Your task to perform on an android device: Go to wifi settings Image 0: 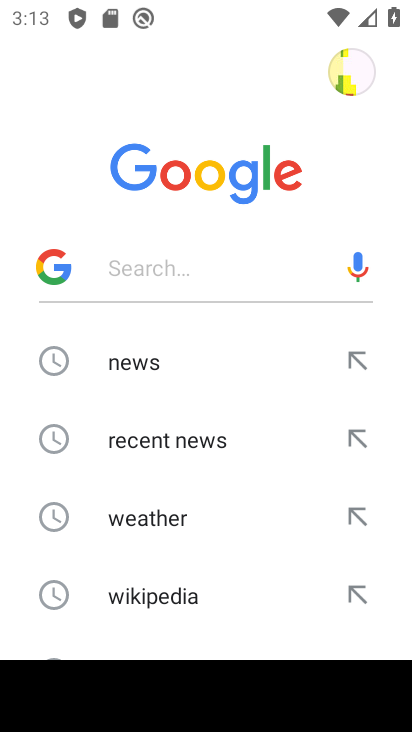
Step 0: press home button
Your task to perform on an android device: Go to wifi settings Image 1: 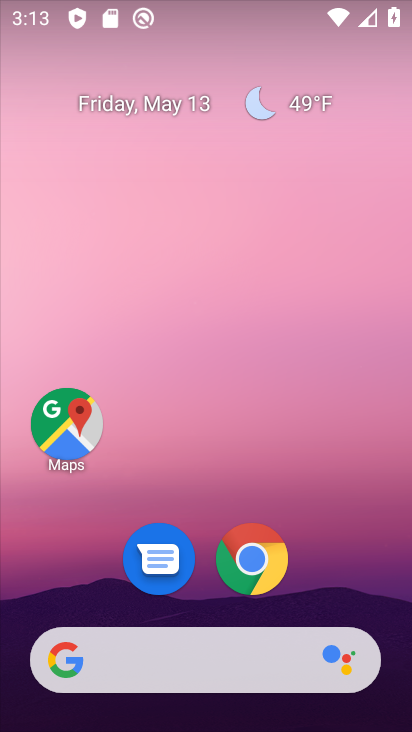
Step 1: drag from (384, 639) to (242, 54)
Your task to perform on an android device: Go to wifi settings Image 2: 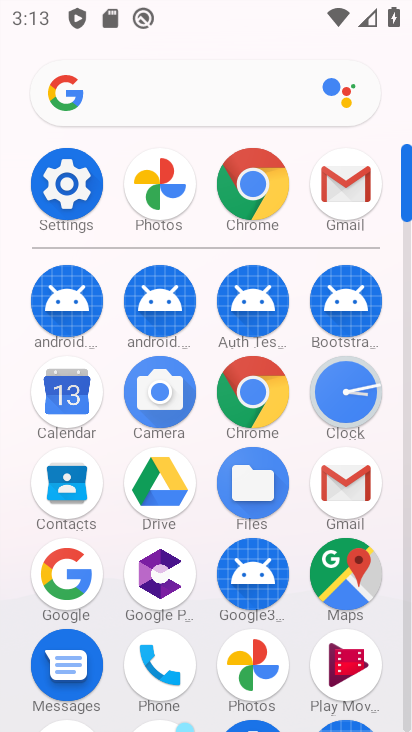
Step 2: click (404, 707)
Your task to perform on an android device: Go to wifi settings Image 3: 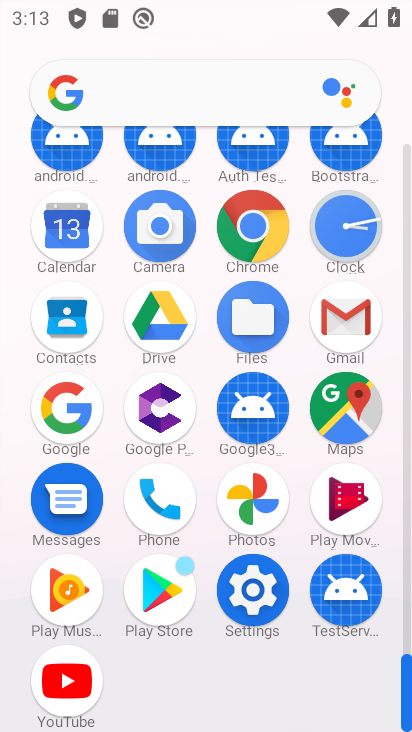
Step 3: click (253, 588)
Your task to perform on an android device: Go to wifi settings Image 4: 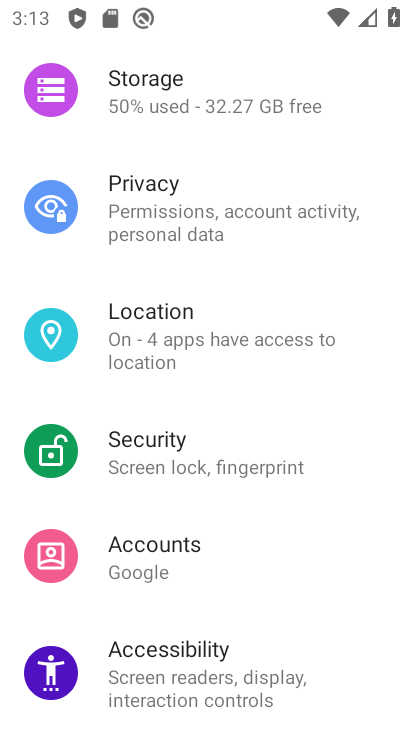
Step 4: drag from (358, 140) to (299, 534)
Your task to perform on an android device: Go to wifi settings Image 5: 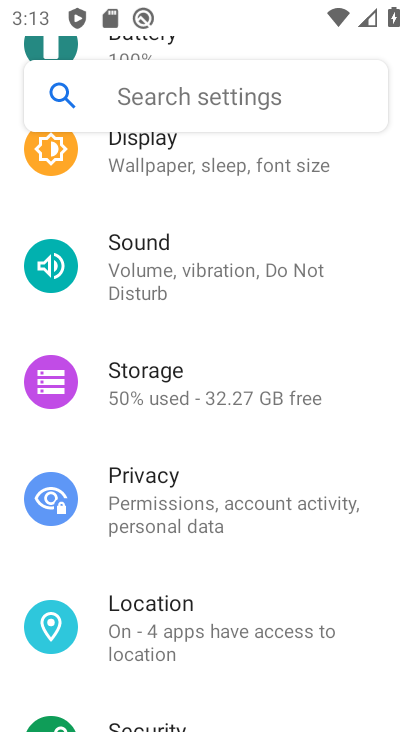
Step 5: drag from (339, 237) to (297, 593)
Your task to perform on an android device: Go to wifi settings Image 6: 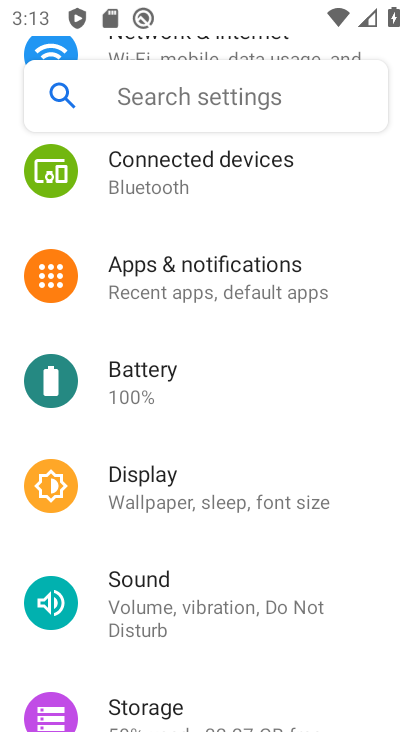
Step 6: drag from (326, 233) to (291, 568)
Your task to perform on an android device: Go to wifi settings Image 7: 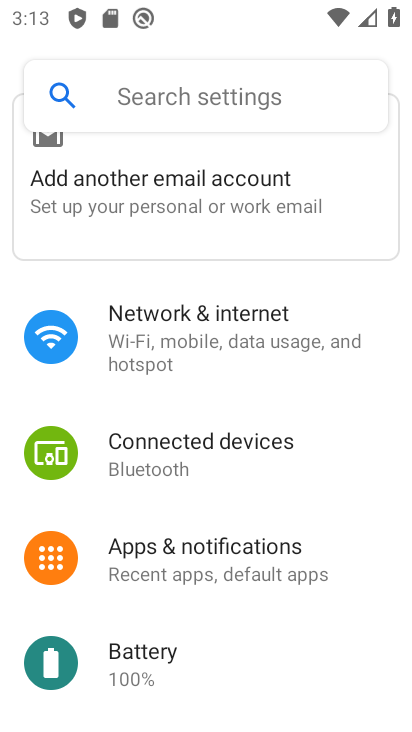
Step 7: click (146, 329)
Your task to perform on an android device: Go to wifi settings Image 8: 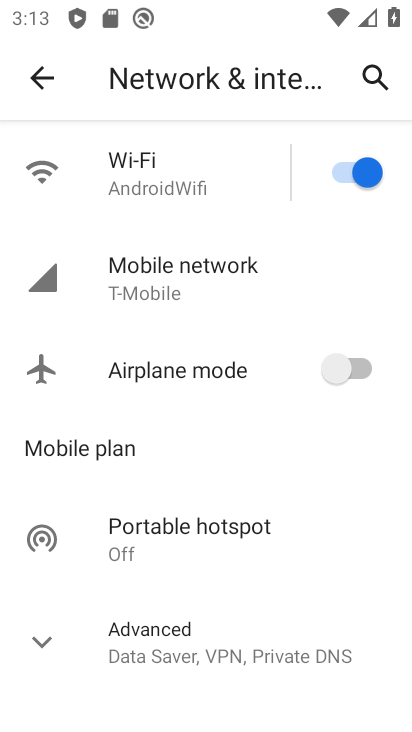
Step 8: click (118, 158)
Your task to perform on an android device: Go to wifi settings Image 9: 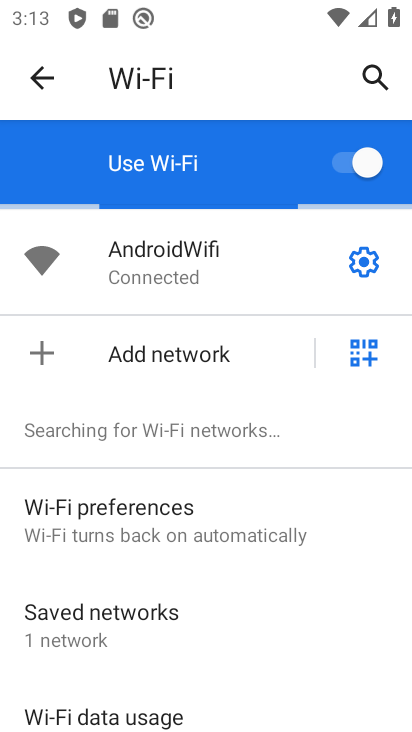
Step 9: drag from (231, 597) to (229, 396)
Your task to perform on an android device: Go to wifi settings Image 10: 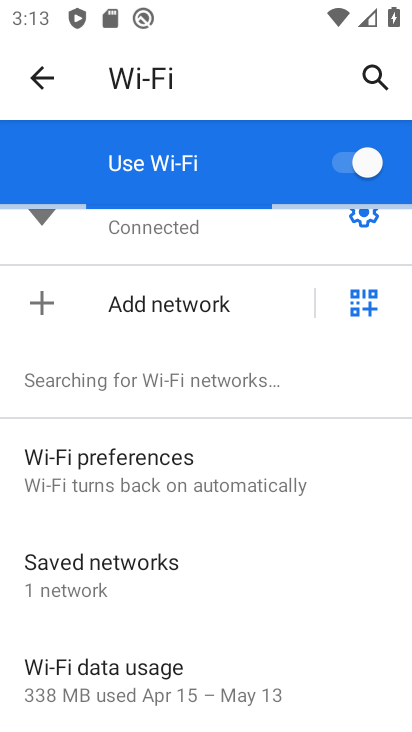
Step 10: click (360, 217)
Your task to perform on an android device: Go to wifi settings Image 11: 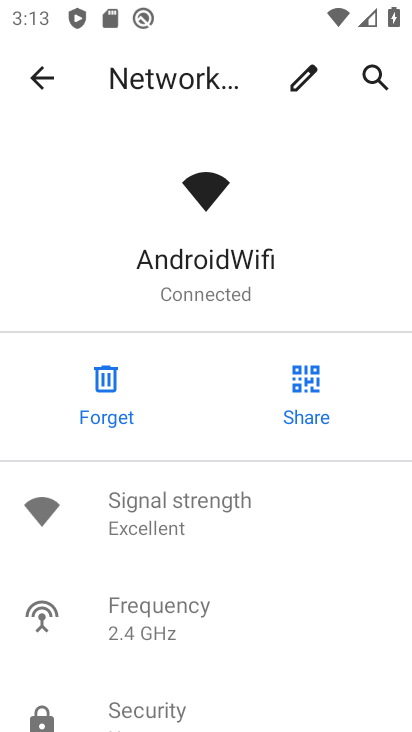
Step 11: drag from (230, 653) to (218, 232)
Your task to perform on an android device: Go to wifi settings Image 12: 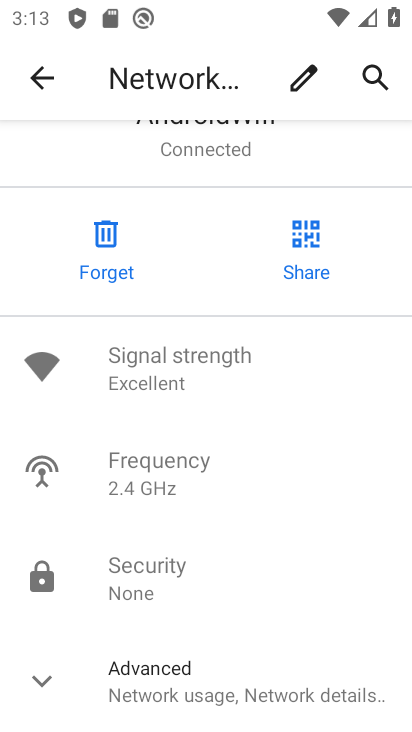
Step 12: click (36, 675)
Your task to perform on an android device: Go to wifi settings Image 13: 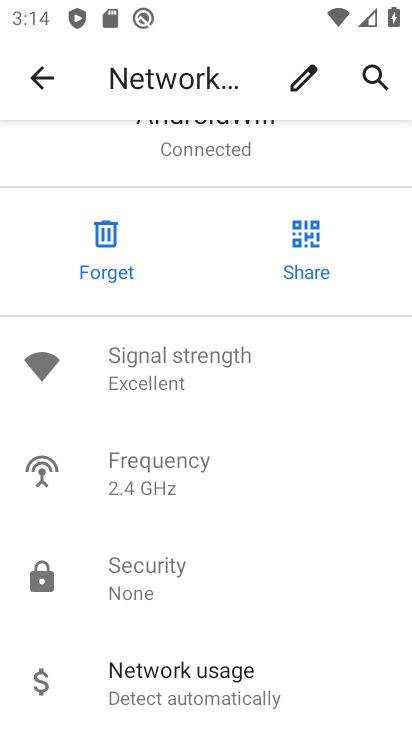
Step 13: task complete